Your task to perform on an android device: toggle translation in the chrome app Image 0: 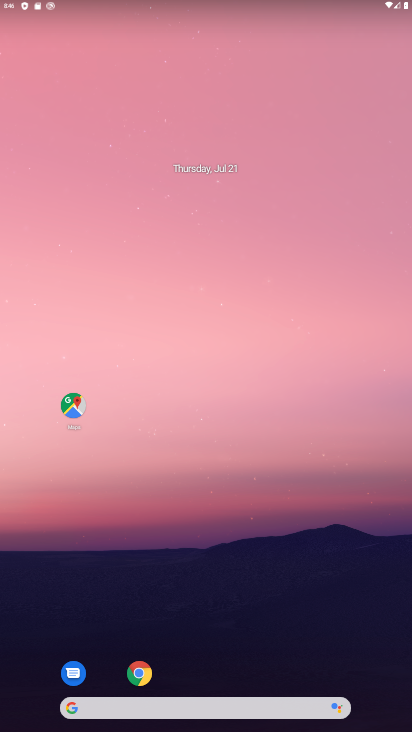
Step 0: click (146, 673)
Your task to perform on an android device: toggle translation in the chrome app Image 1: 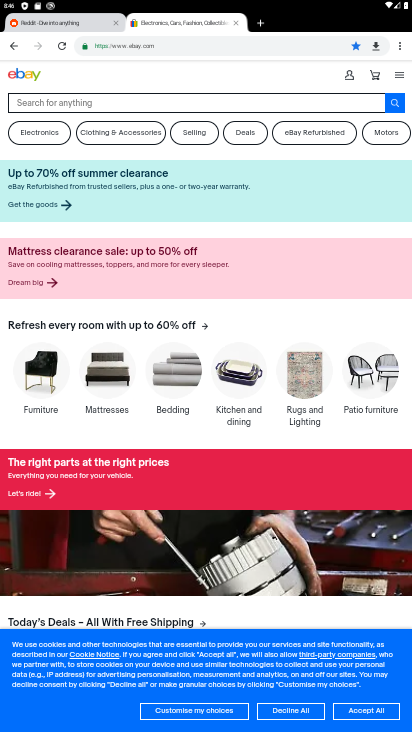
Step 1: click (399, 52)
Your task to perform on an android device: toggle translation in the chrome app Image 2: 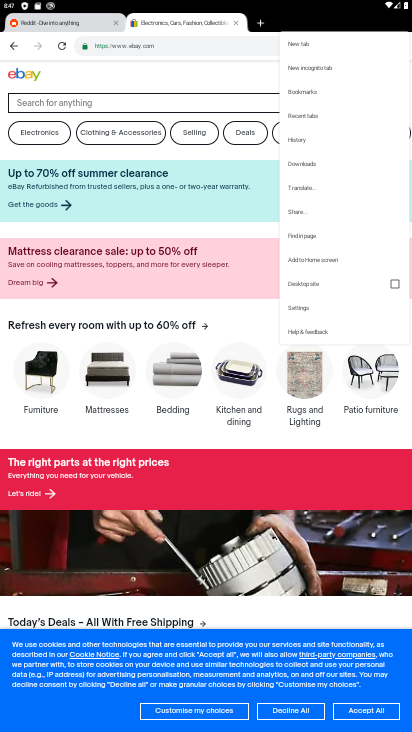
Step 2: click (342, 303)
Your task to perform on an android device: toggle translation in the chrome app Image 3: 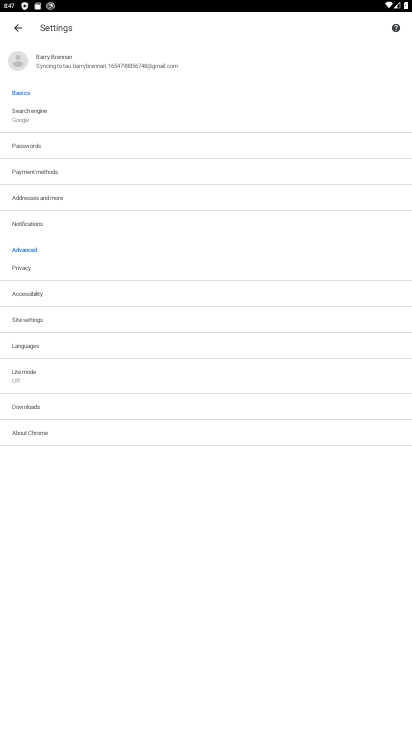
Step 3: click (87, 340)
Your task to perform on an android device: toggle translation in the chrome app Image 4: 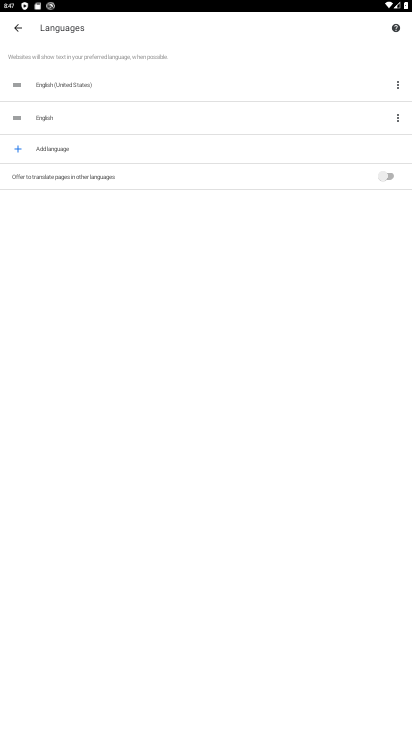
Step 4: click (383, 171)
Your task to perform on an android device: toggle translation in the chrome app Image 5: 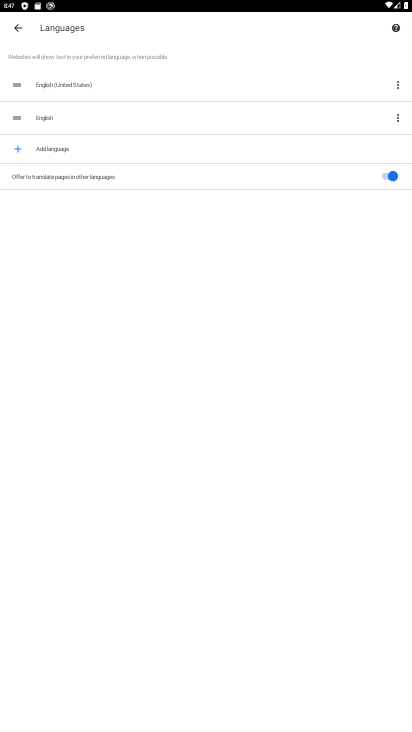
Step 5: task complete